Your task to perform on an android device: Open eBay Image 0: 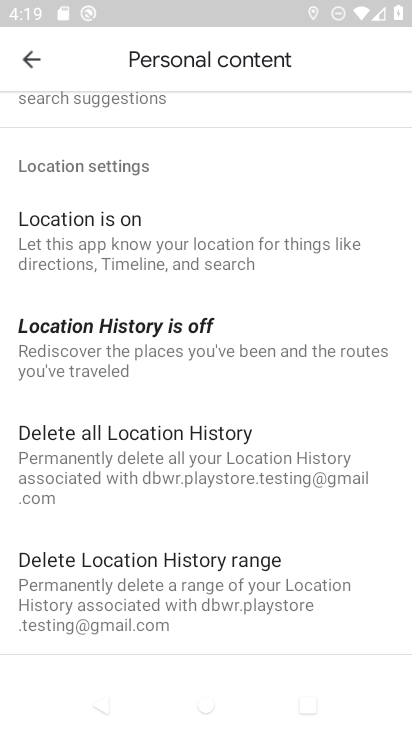
Step 0: press home button
Your task to perform on an android device: Open eBay Image 1: 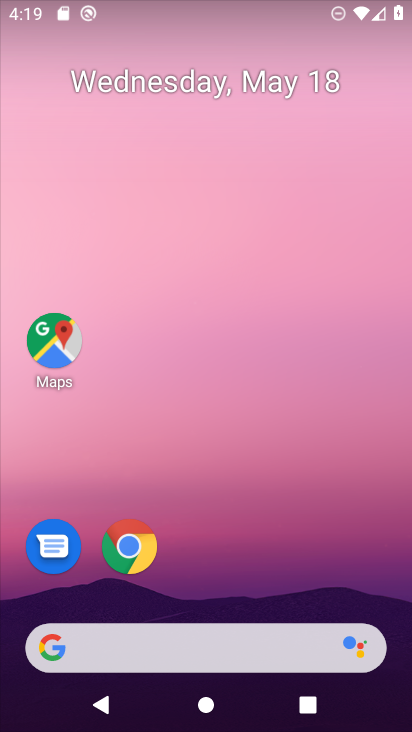
Step 1: click (134, 542)
Your task to perform on an android device: Open eBay Image 2: 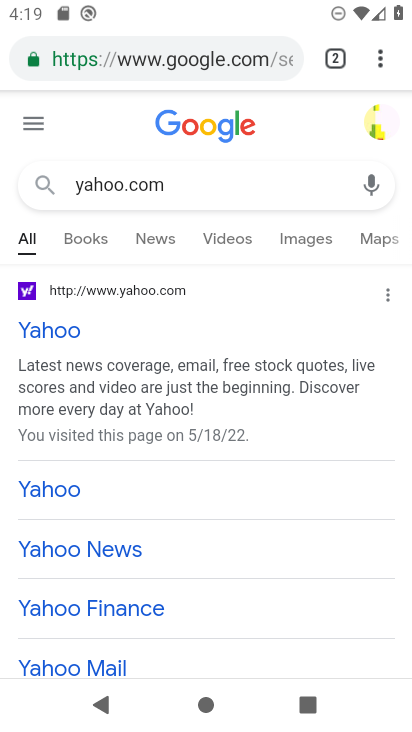
Step 2: click (203, 61)
Your task to perform on an android device: Open eBay Image 3: 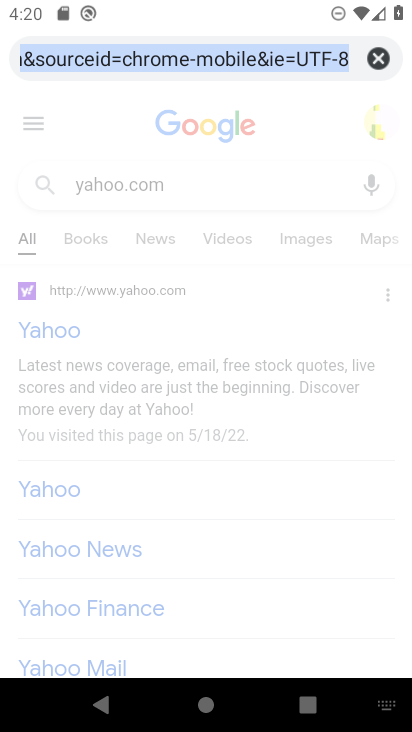
Step 3: type "eBay"
Your task to perform on an android device: Open eBay Image 4: 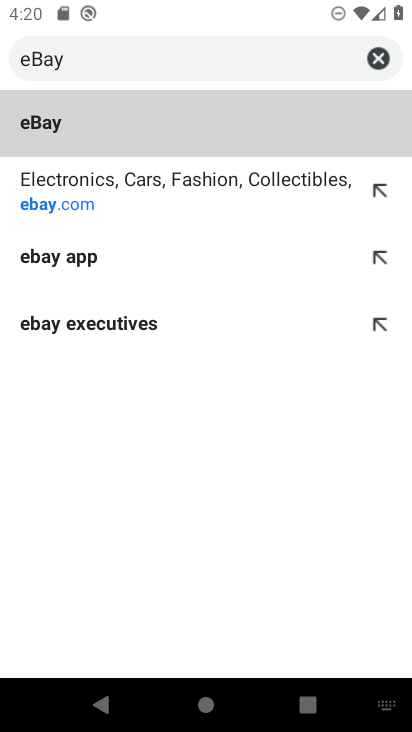
Step 4: click (82, 134)
Your task to perform on an android device: Open eBay Image 5: 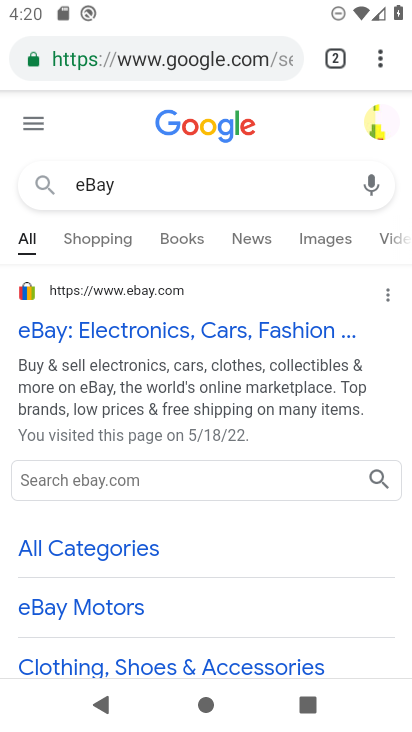
Step 5: task complete